Your task to perform on an android device: allow notifications from all sites in the chrome app Image 0: 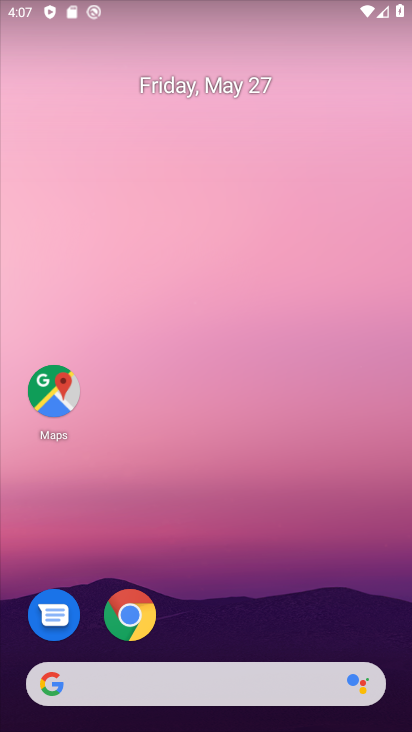
Step 0: drag from (217, 334) to (85, 23)
Your task to perform on an android device: allow notifications from all sites in the chrome app Image 1: 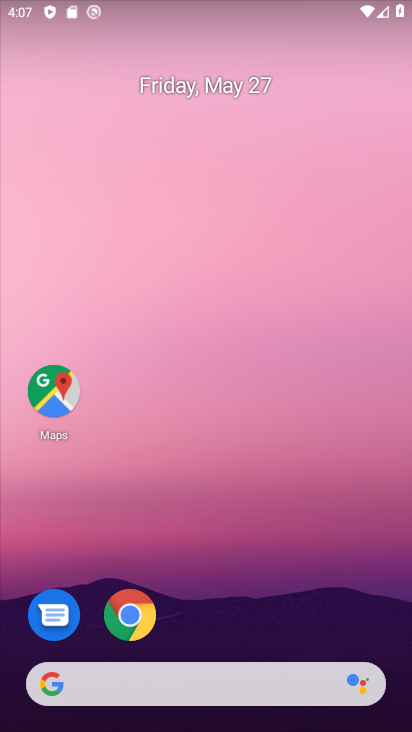
Step 1: click (153, 612)
Your task to perform on an android device: allow notifications from all sites in the chrome app Image 2: 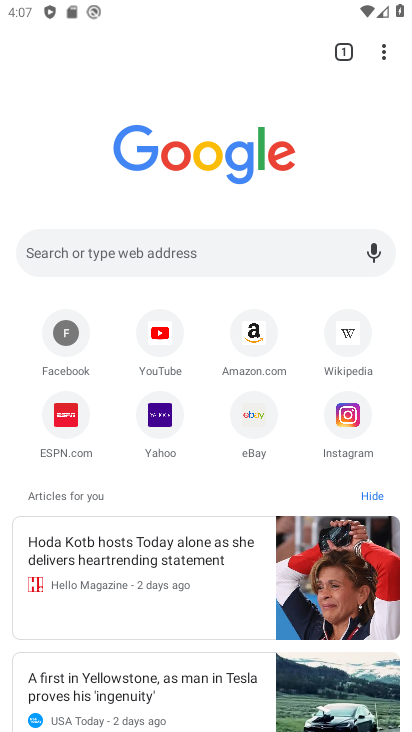
Step 2: click (378, 44)
Your task to perform on an android device: allow notifications from all sites in the chrome app Image 3: 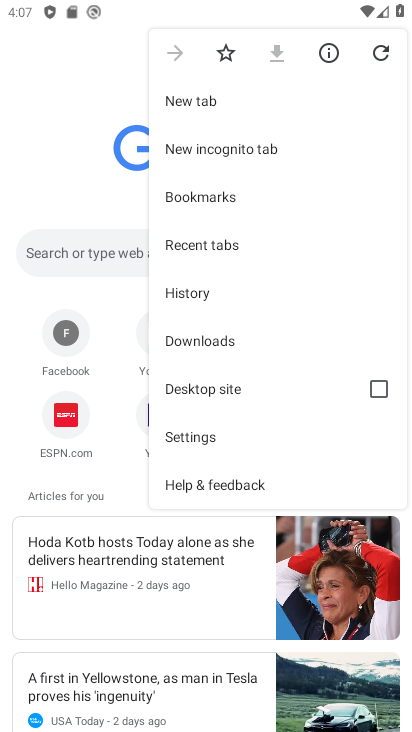
Step 3: click (215, 420)
Your task to perform on an android device: allow notifications from all sites in the chrome app Image 4: 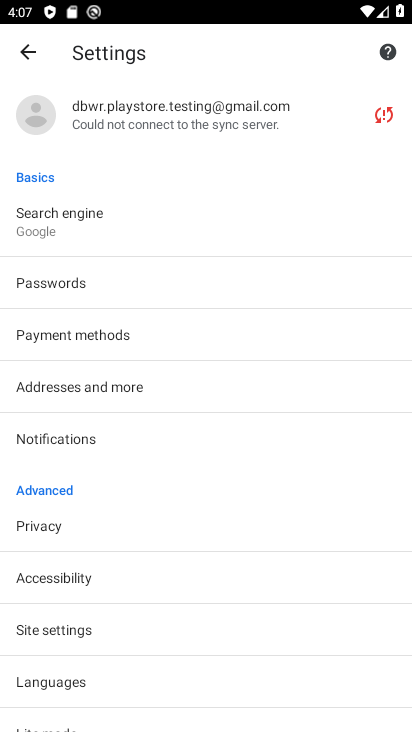
Step 4: click (135, 635)
Your task to perform on an android device: allow notifications from all sites in the chrome app Image 5: 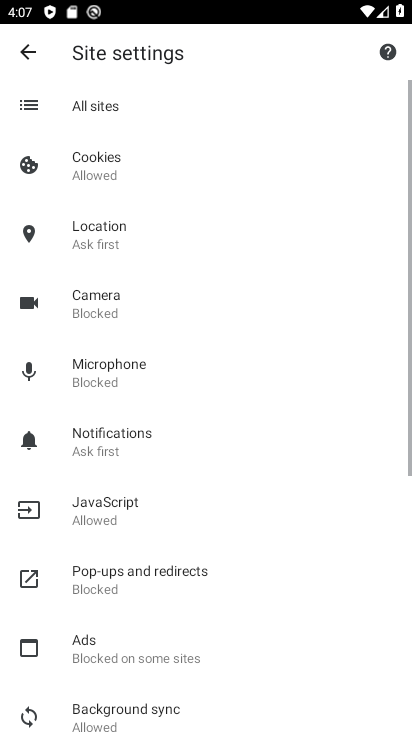
Step 5: click (103, 98)
Your task to perform on an android device: allow notifications from all sites in the chrome app Image 6: 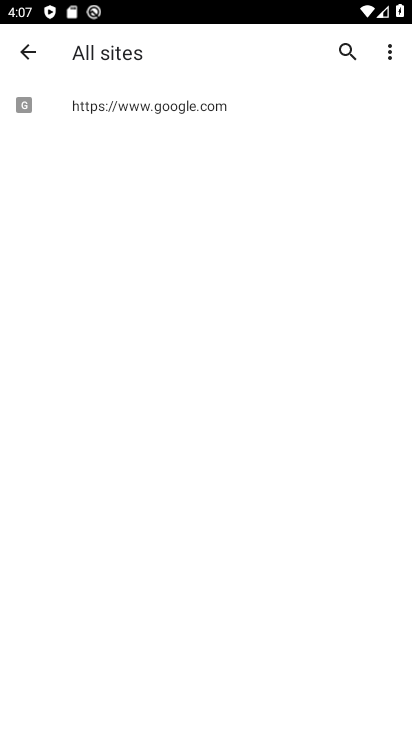
Step 6: click (176, 103)
Your task to perform on an android device: allow notifications from all sites in the chrome app Image 7: 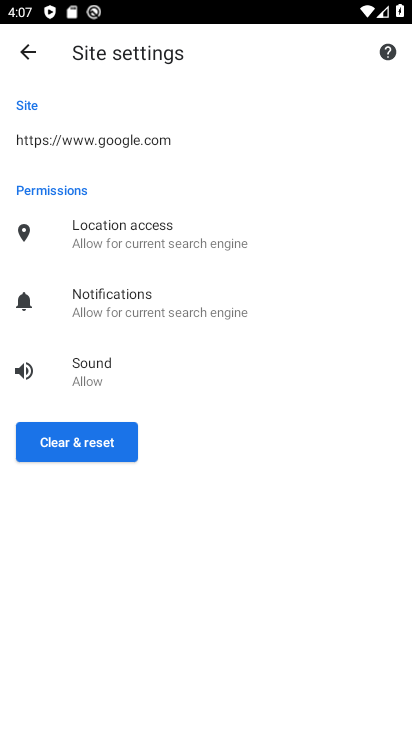
Step 7: click (157, 293)
Your task to perform on an android device: allow notifications from all sites in the chrome app Image 8: 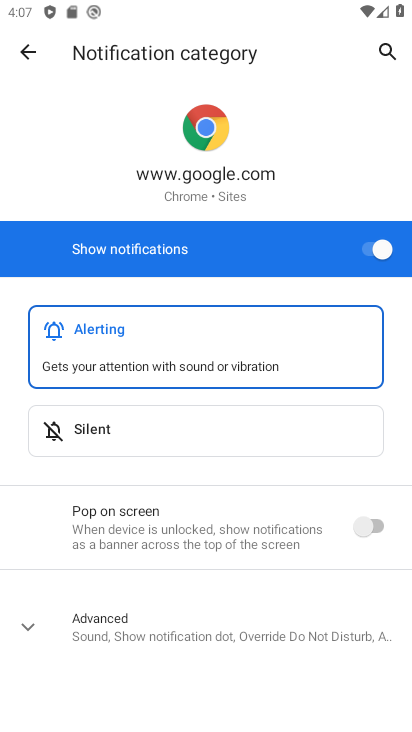
Step 8: task complete